Your task to perform on an android device: clear history in the chrome app Image 0: 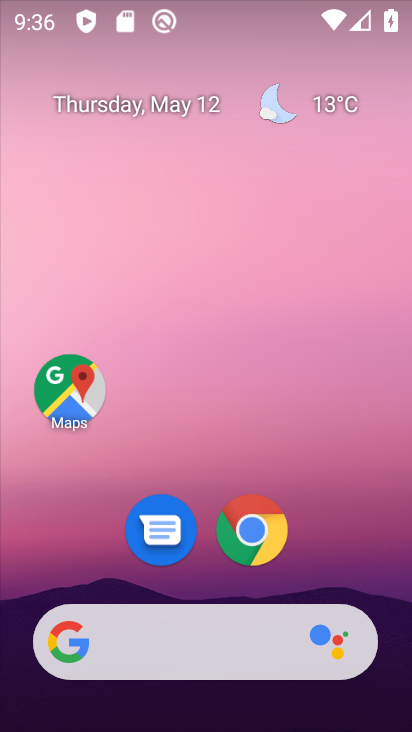
Step 0: click (244, 531)
Your task to perform on an android device: clear history in the chrome app Image 1: 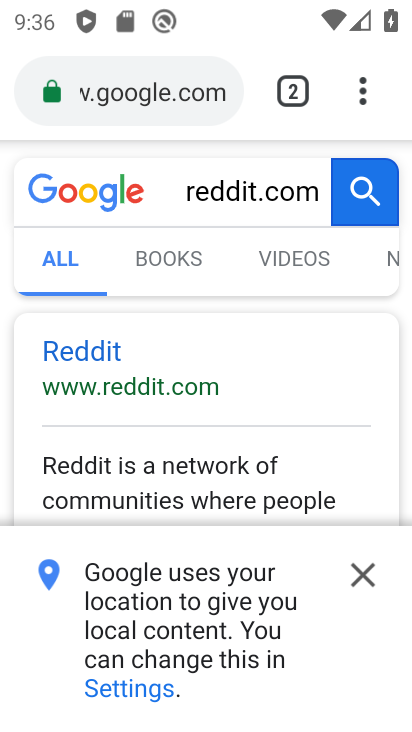
Step 1: click (368, 87)
Your task to perform on an android device: clear history in the chrome app Image 2: 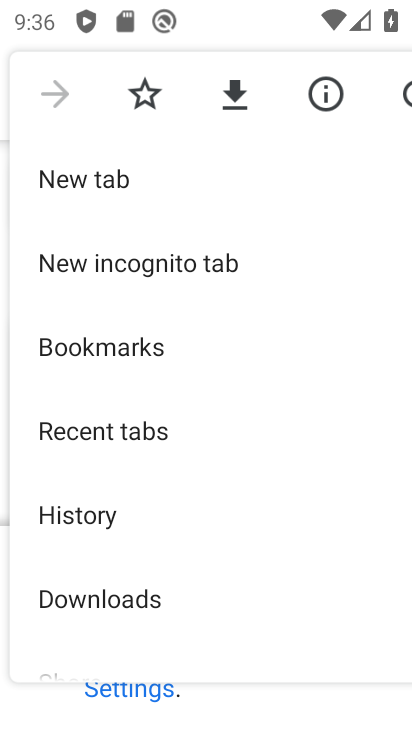
Step 2: click (132, 515)
Your task to perform on an android device: clear history in the chrome app Image 3: 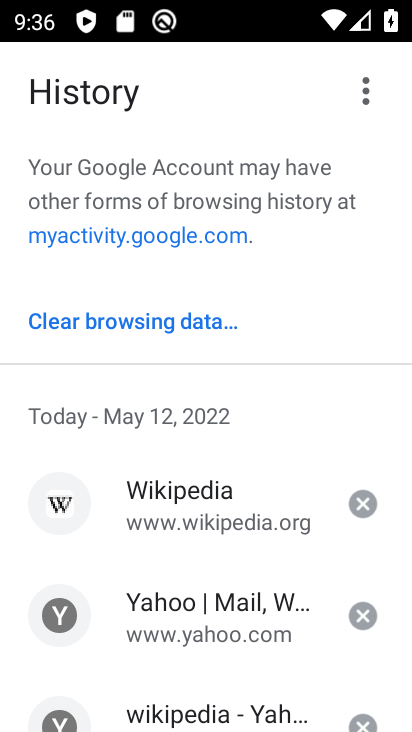
Step 3: click (175, 326)
Your task to perform on an android device: clear history in the chrome app Image 4: 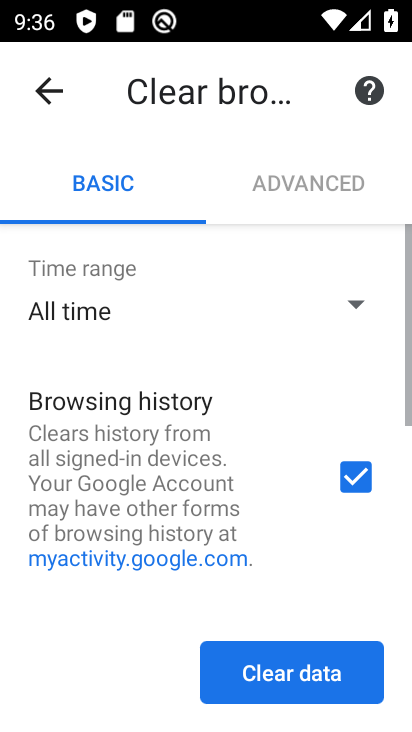
Step 4: click (274, 661)
Your task to perform on an android device: clear history in the chrome app Image 5: 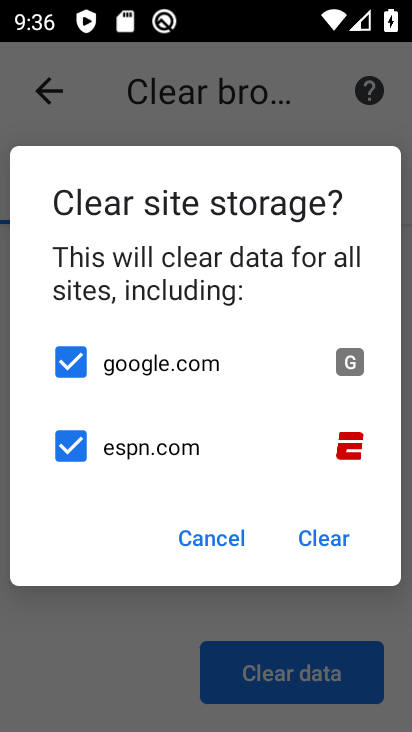
Step 5: click (325, 530)
Your task to perform on an android device: clear history in the chrome app Image 6: 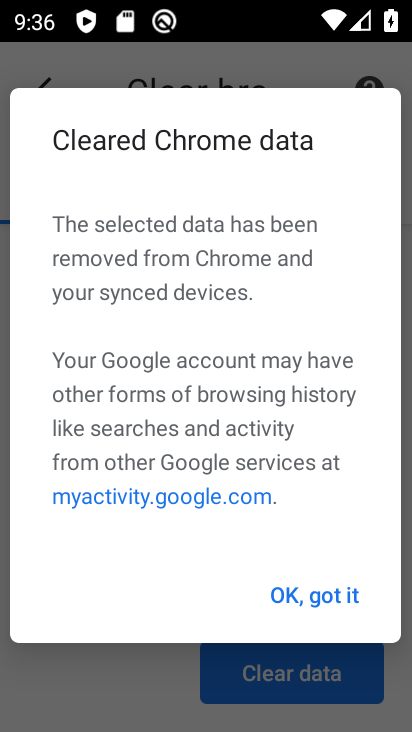
Step 6: task complete